Your task to perform on an android device: Open wifi settings Image 0: 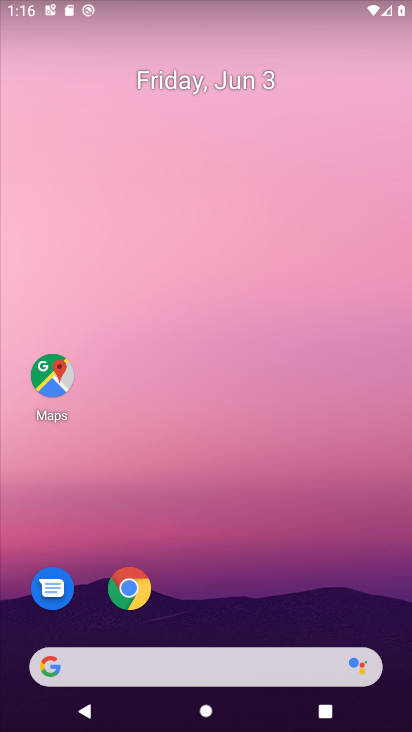
Step 0: drag from (261, 638) to (291, 13)
Your task to perform on an android device: Open wifi settings Image 1: 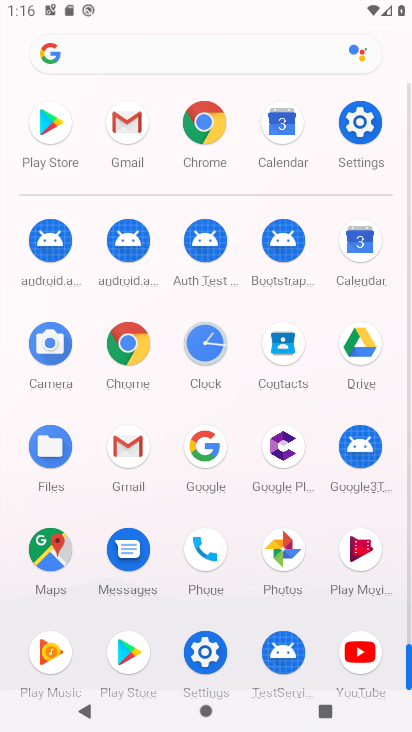
Step 1: click (344, 126)
Your task to perform on an android device: Open wifi settings Image 2: 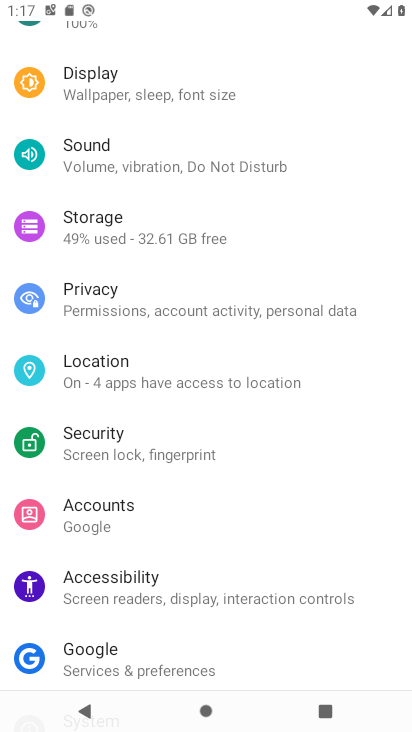
Step 2: drag from (226, 207) to (226, 633)
Your task to perform on an android device: Open wifi settings Image 3: 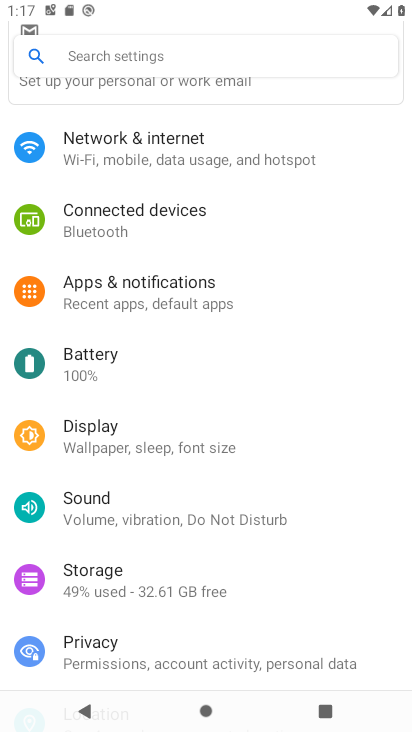
Step 3: drag from (239, 329) to (215, 542)
Your task to perform on an android device: Open wifi settings Image 4: 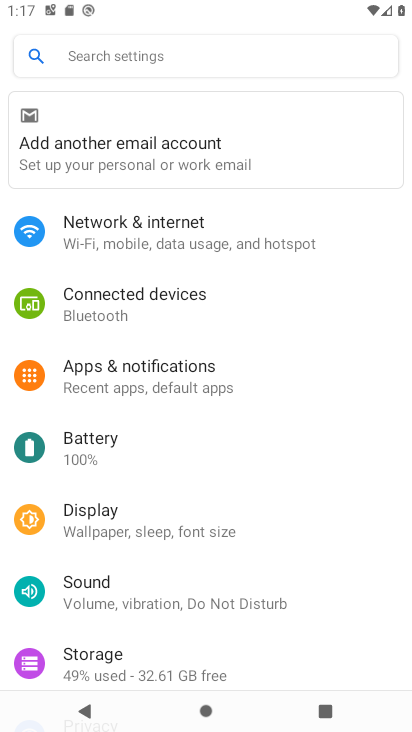
Step 4: click (259, 239)
Your task to perform on an android device: Open wifi settings Image 5: 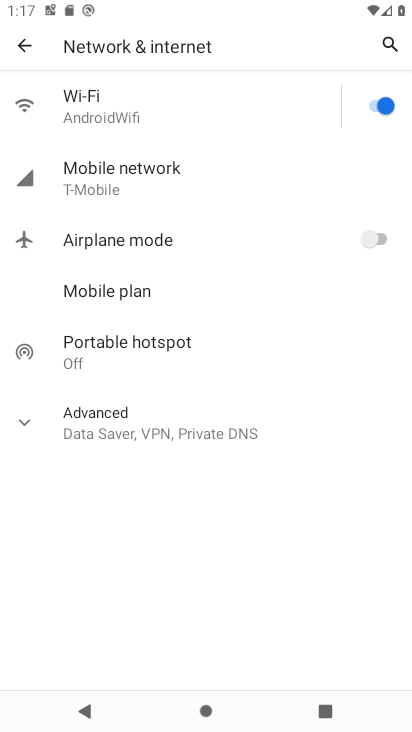
Step 5: click (215, 103)
Your task to perform on an android device: Open wifi settings Image 6: 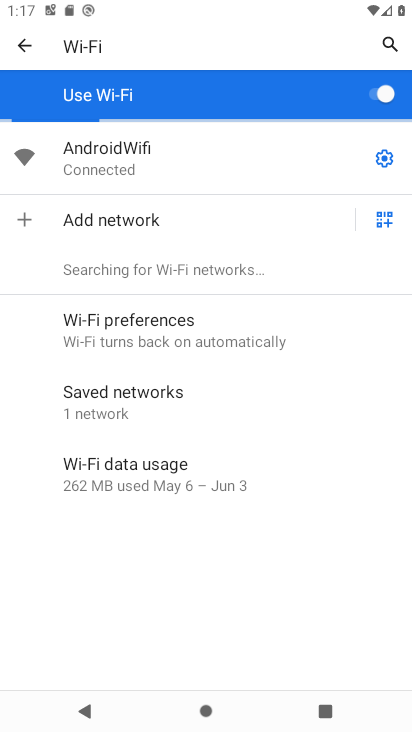
Step 6: task complete